Your task to perform on an android device: turn off notifications in google photos Image 0: 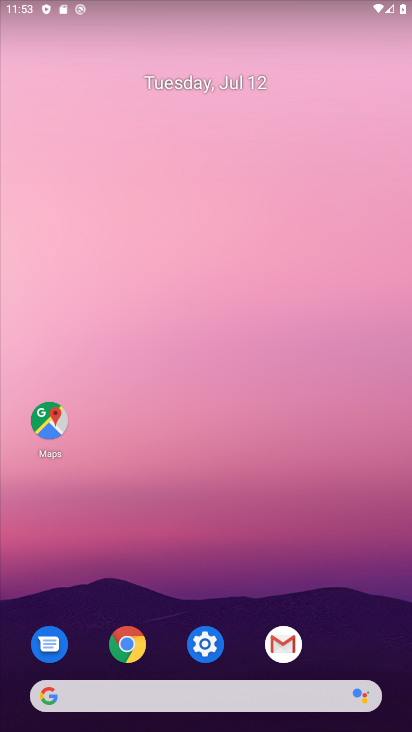
Step 0: drag from (279, 713) to (271, 325)
Your task to perform on an android device: turn off notifications in google photos Image 1: 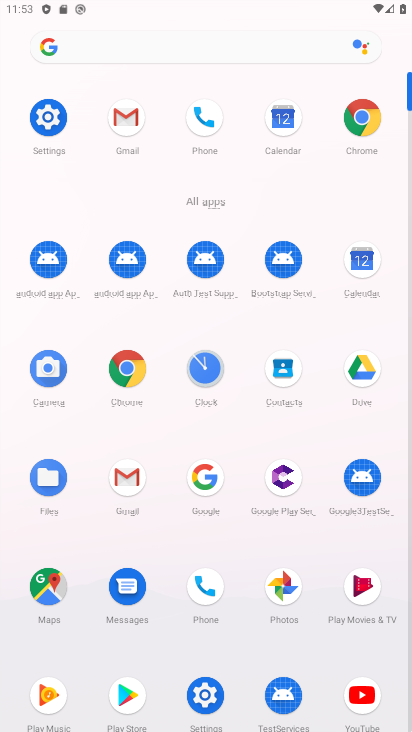
Step 1: click (281, 603)
Your task to perform on an android device: turn off notifications in google photos Image 2: 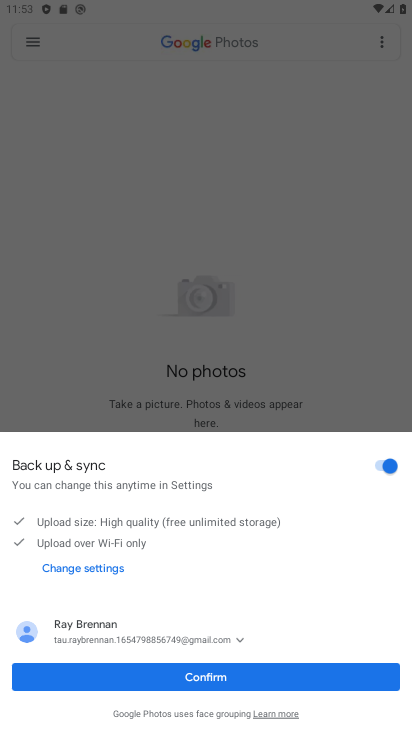
Step 2: click (278, 673)
Your task to perform on an android device: turn off notifications in google photos Image 3: 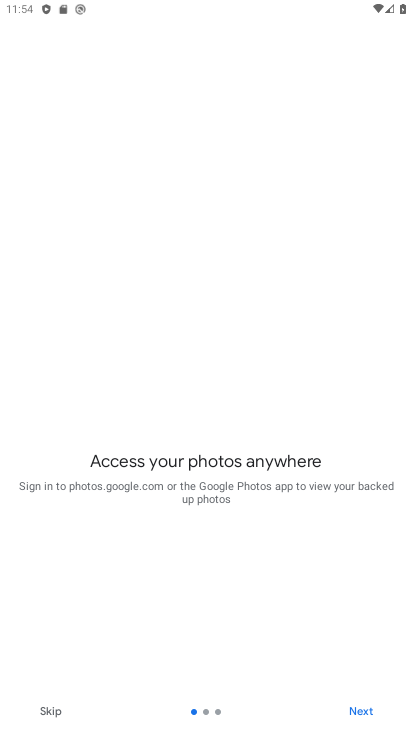
Step 3: click (373, 709)
Your task to perform on an android device: turn off notifications in google photos Image 4: 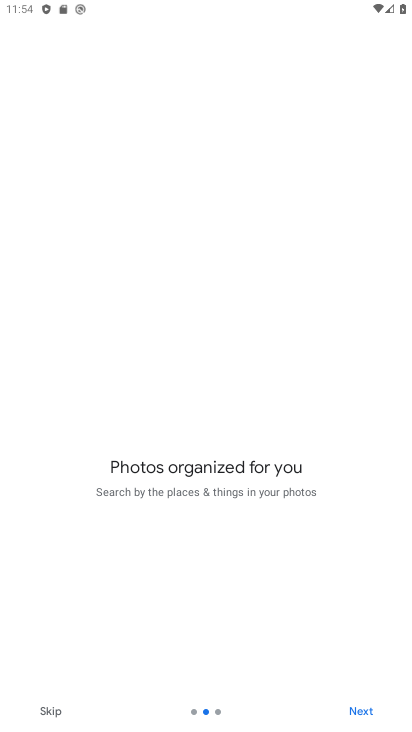
Step 4: click (361, 701)
Your task to perform on an android device: turn off notifications in google photos Image 5: 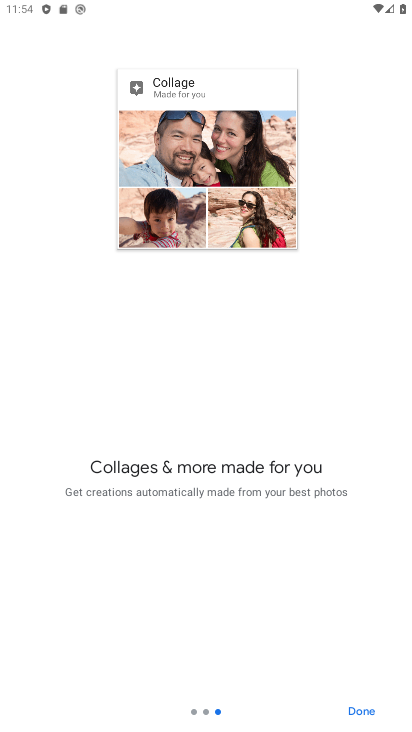
Step 5: click (361, 699)
Your task to perform on an android device: turn off notifications in google photos Image 6: 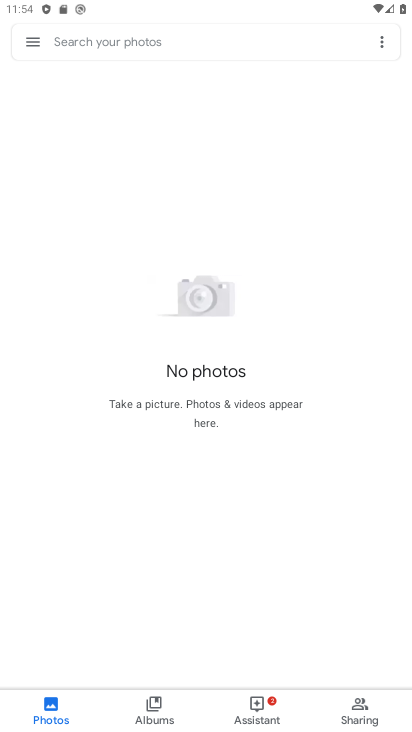
Step 6: click (39, 29)
Your task to perform on an android device: turn off notifications in google photos Image 7: 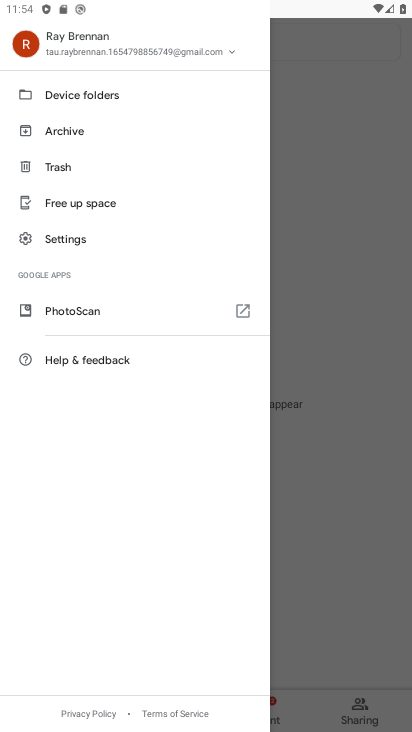
Step 7: click (78, 237)
Your task to perform on an android device: turn off notifications in google photos Image 8: 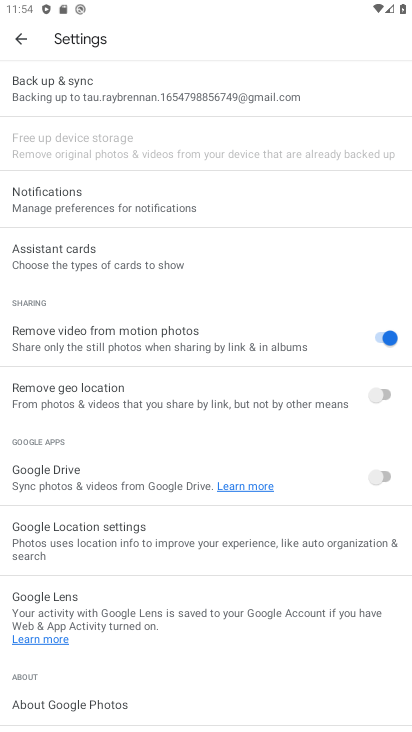
Step 8: click (103, 208)
Your task to perform on an android device: turn off notifications in google photos Image 9: 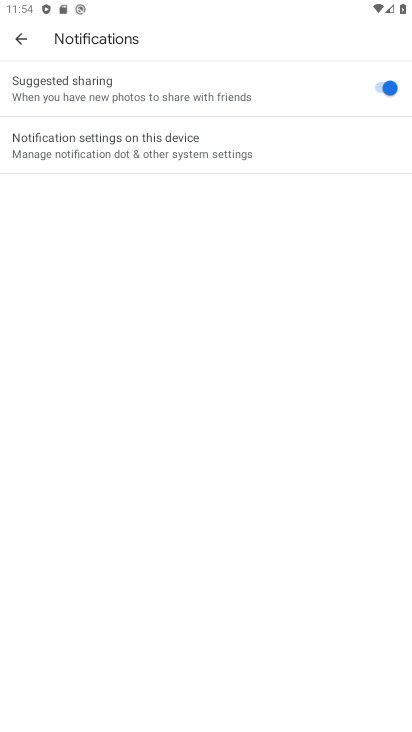
Step 9: click (184, 132)
Your task to perform on an android device: turn off notifications in google photos Image 10: 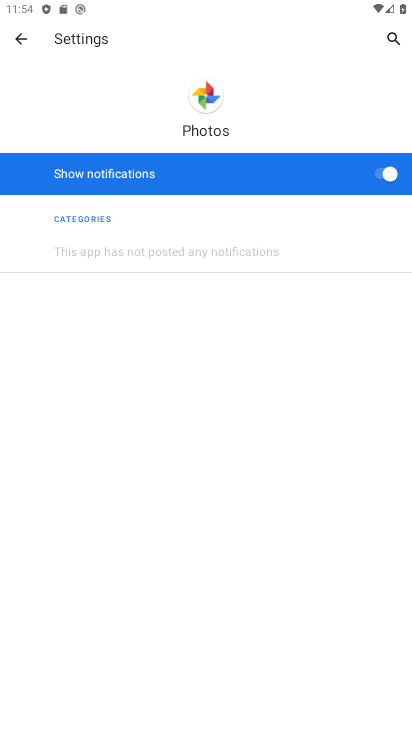
Step 10: click (381, 179)
Your task to perform on an android device: turn off notifications in google photos Image 11: 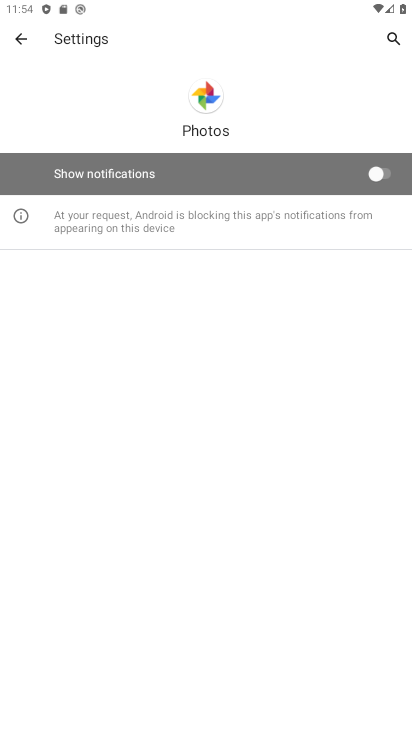
Step 11: task complete